Your task to perform on an android device: uninstall "DoorDash - Food Delivery" Image 0: 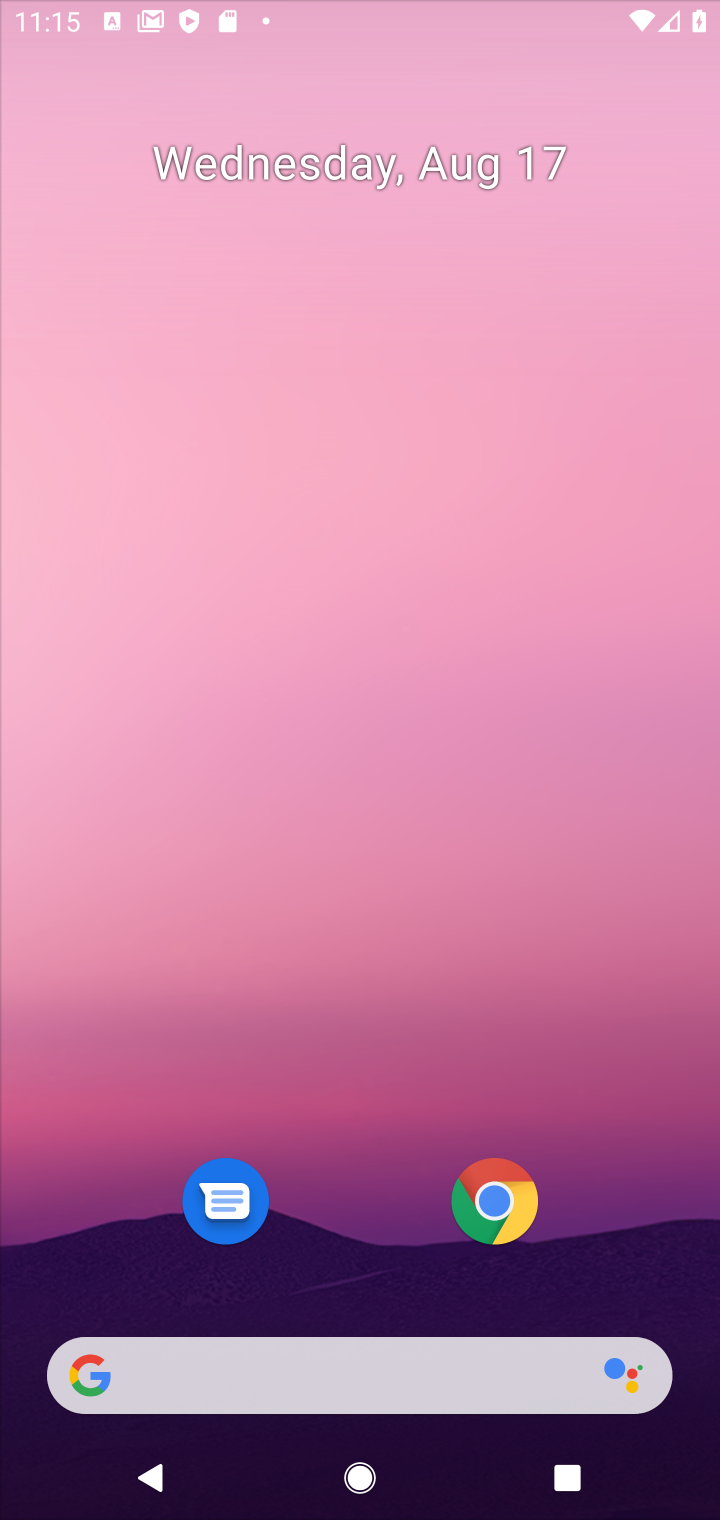
Step 0: press home button
Your task to perform on an android device: uninstall "DoorDash - Food Delivery" Image 1: 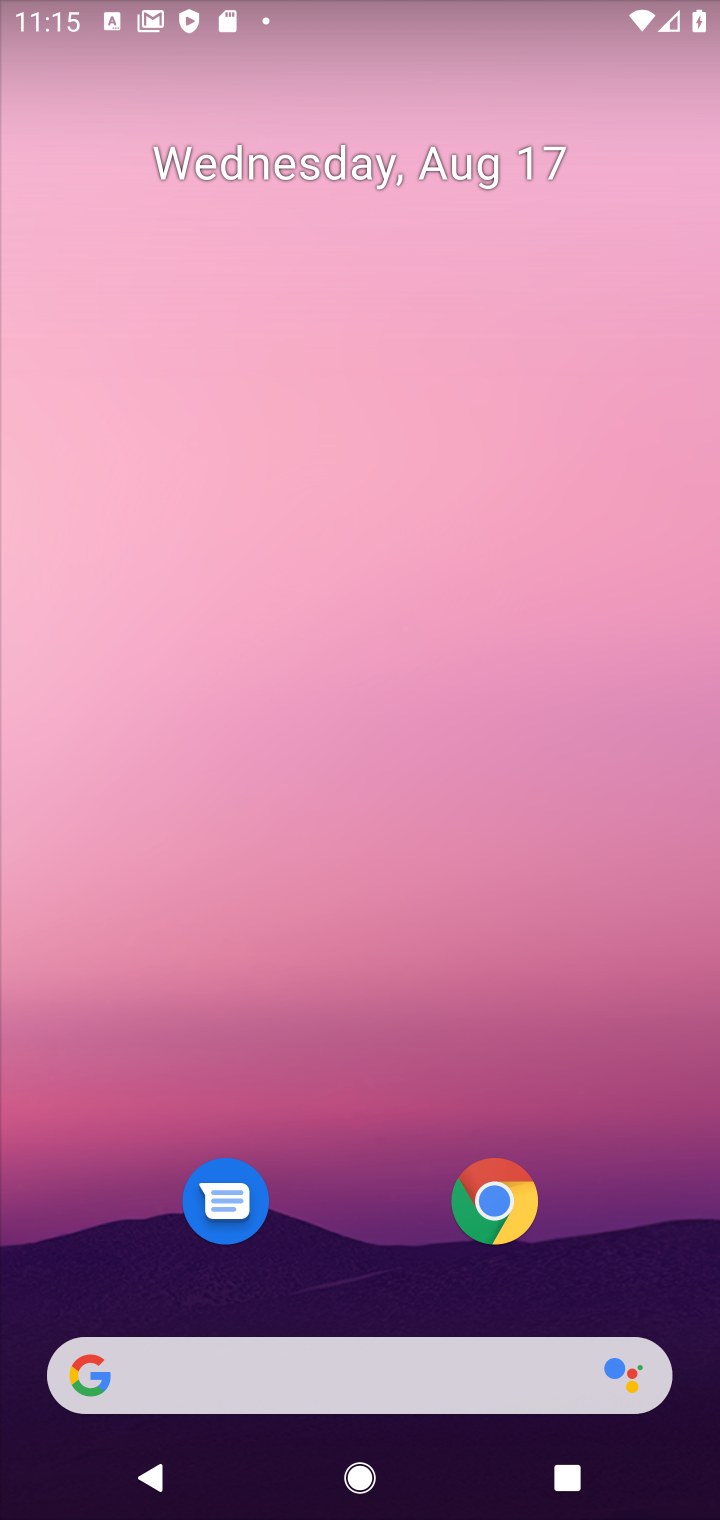
Step 1: drag from (355, 1098) to (424, 162)
Your task to perform on an android device: uninstall "DoorDash - Food Delivery" Image 2: 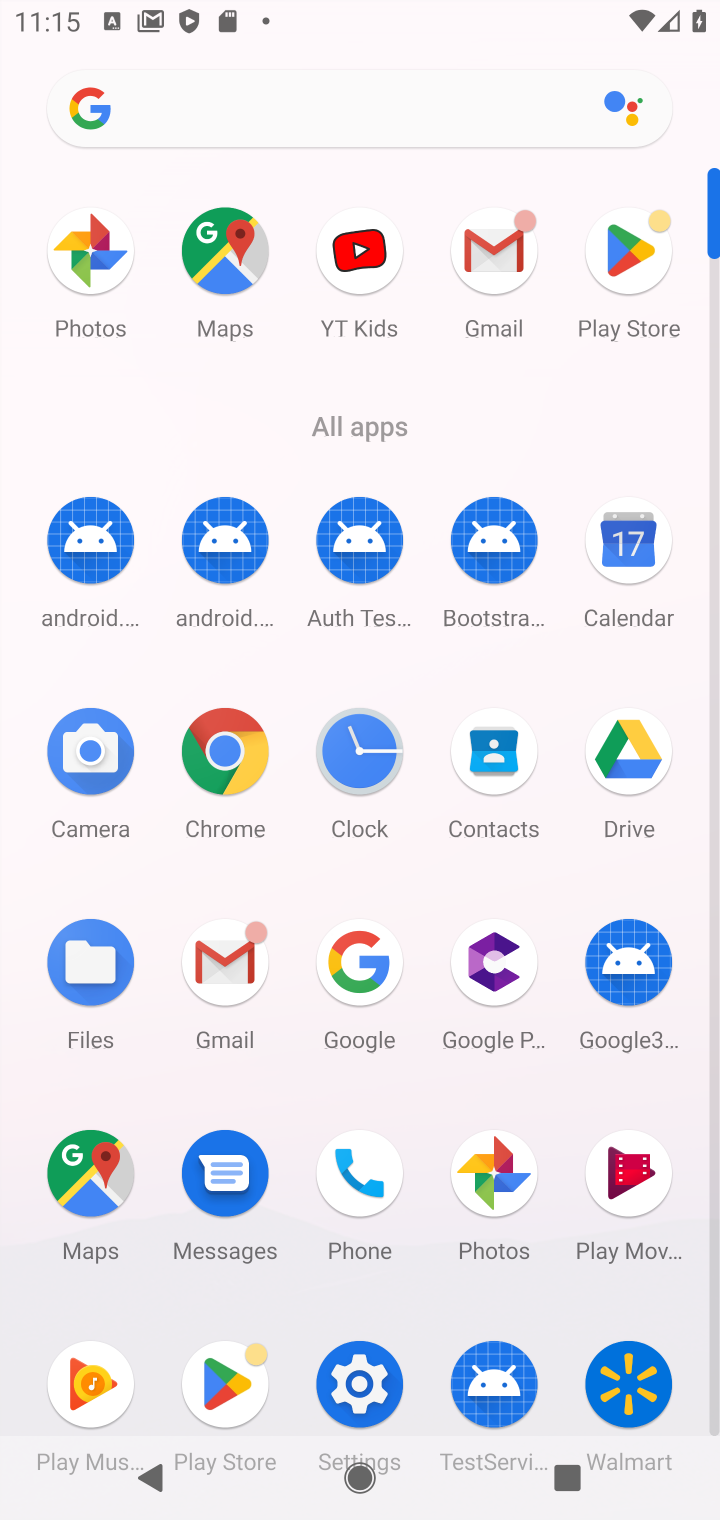
Step 2: click (645, 267)
Your task to perform on an android device: uninstall "DoorDash - Food Delivery" Image 3: 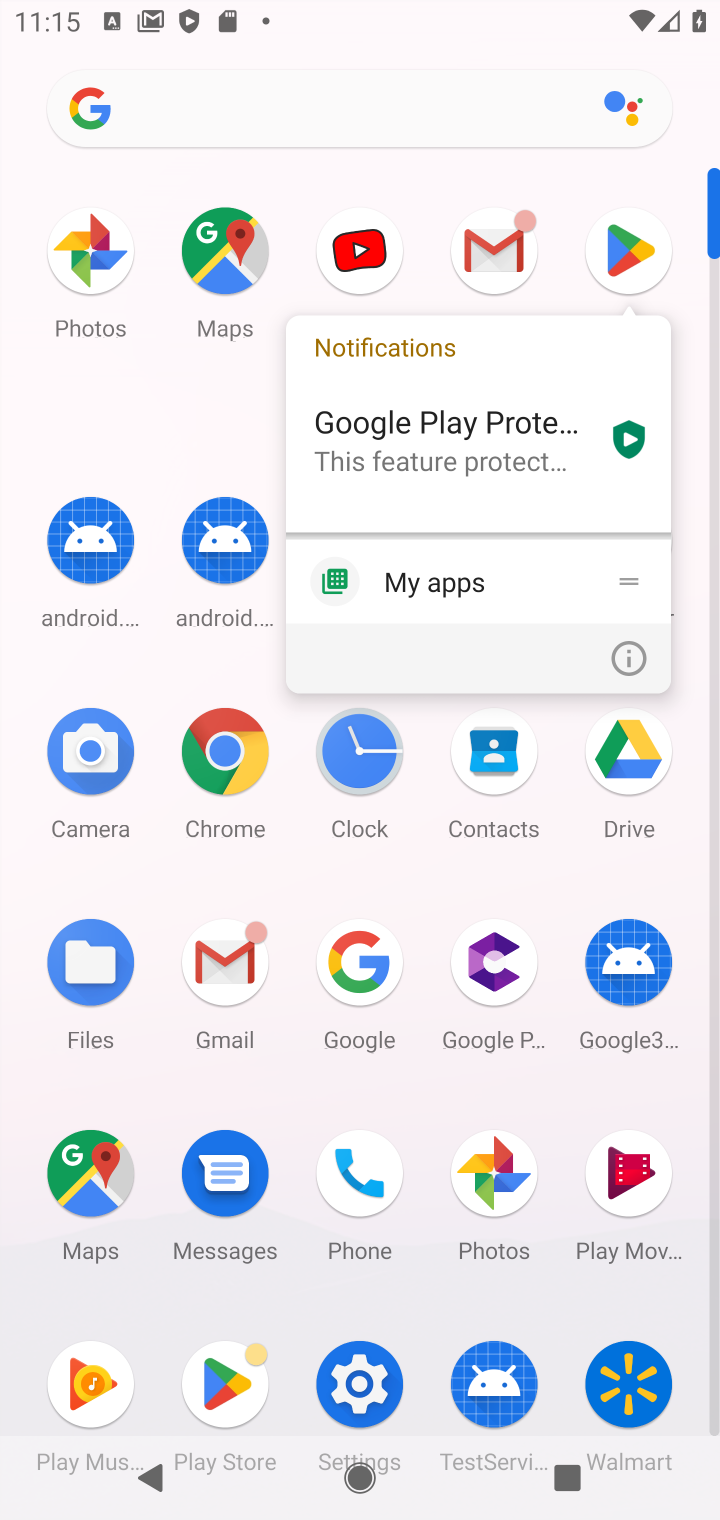
Step 3: click (633, 254)
Your task to perform on an android device: uninstall "DoorDash - Food Delivery" Image 4: 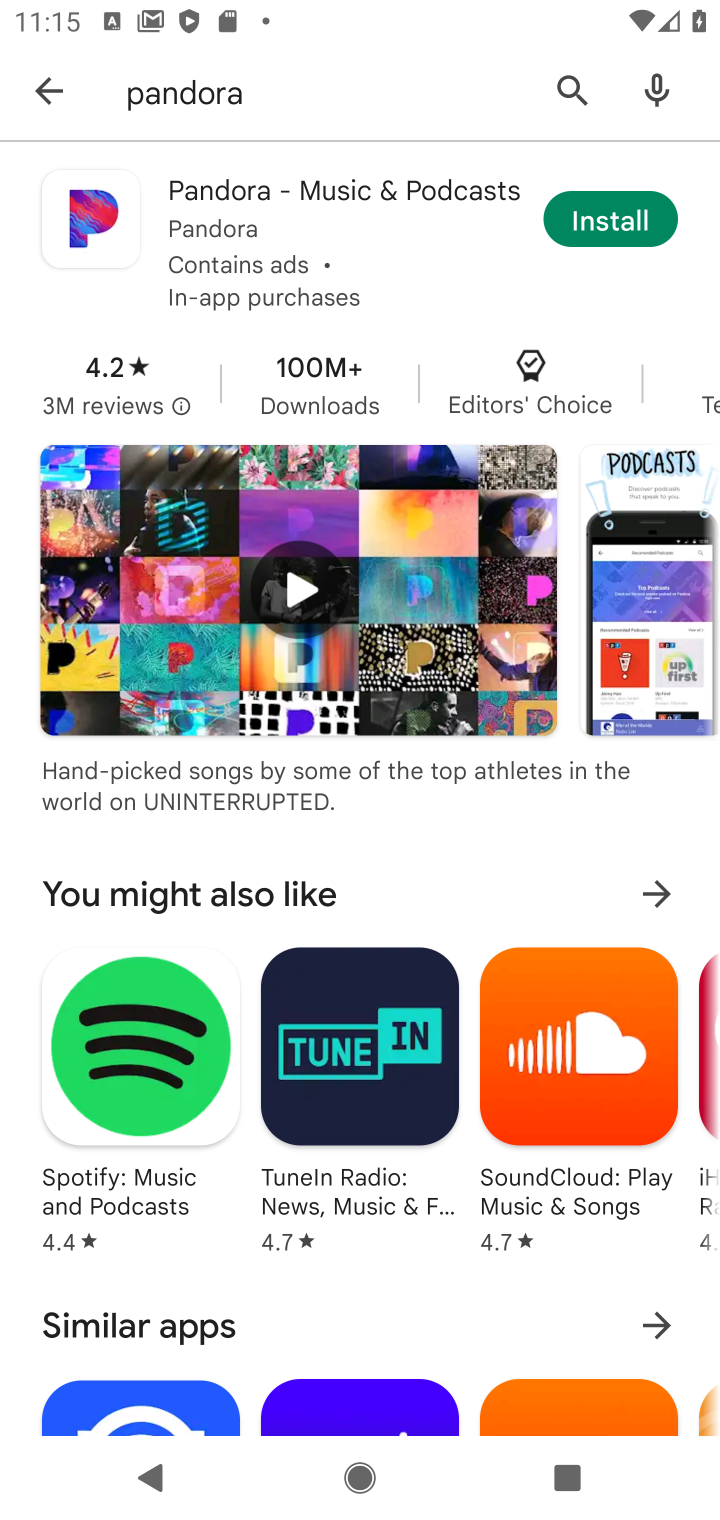
Step 4: click (318, 101)
Your task to perform on an android device: uninstall "DoorDash - Food Delivery" Image 5: 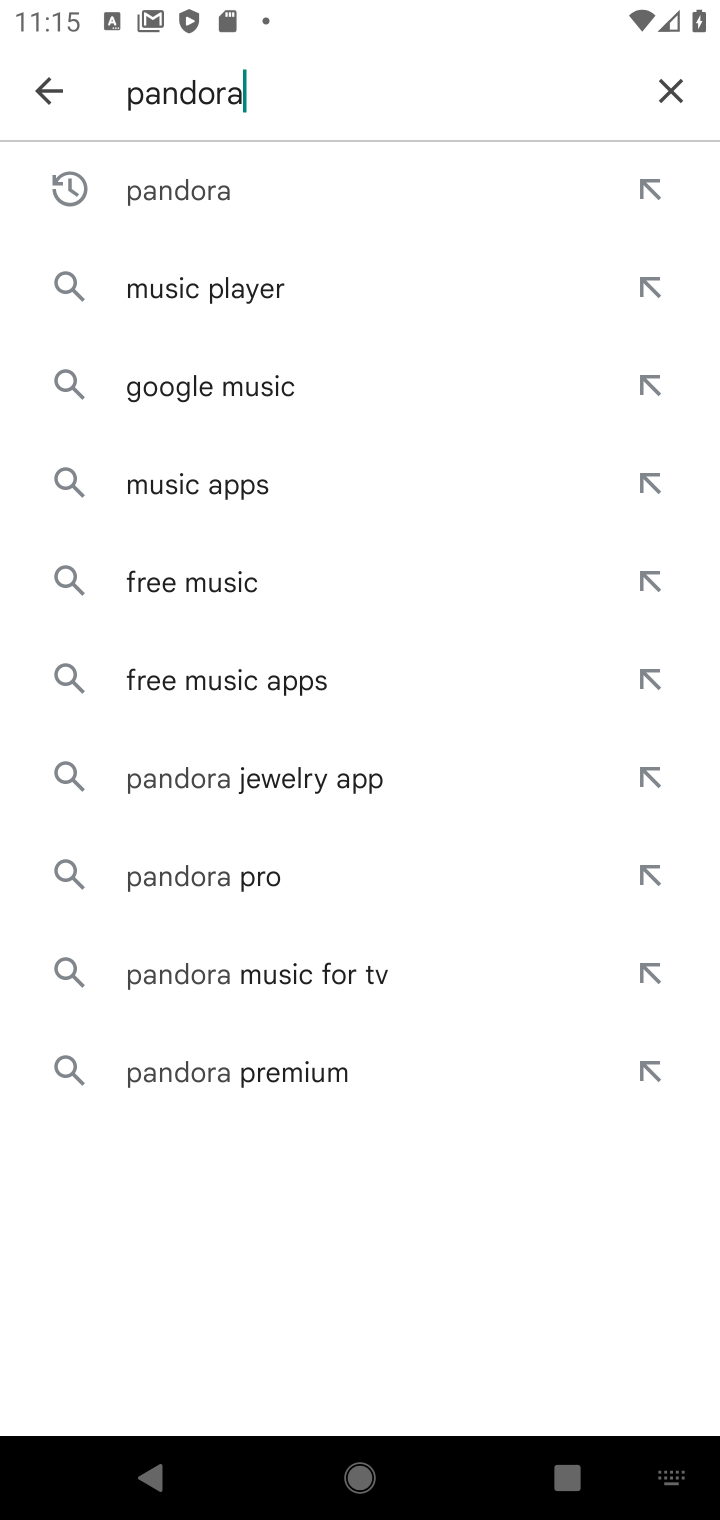
Step 5: click (680, 85)
Your task to perform on an android device: uninstall "DoorDash - Food Delivery" Image 6: 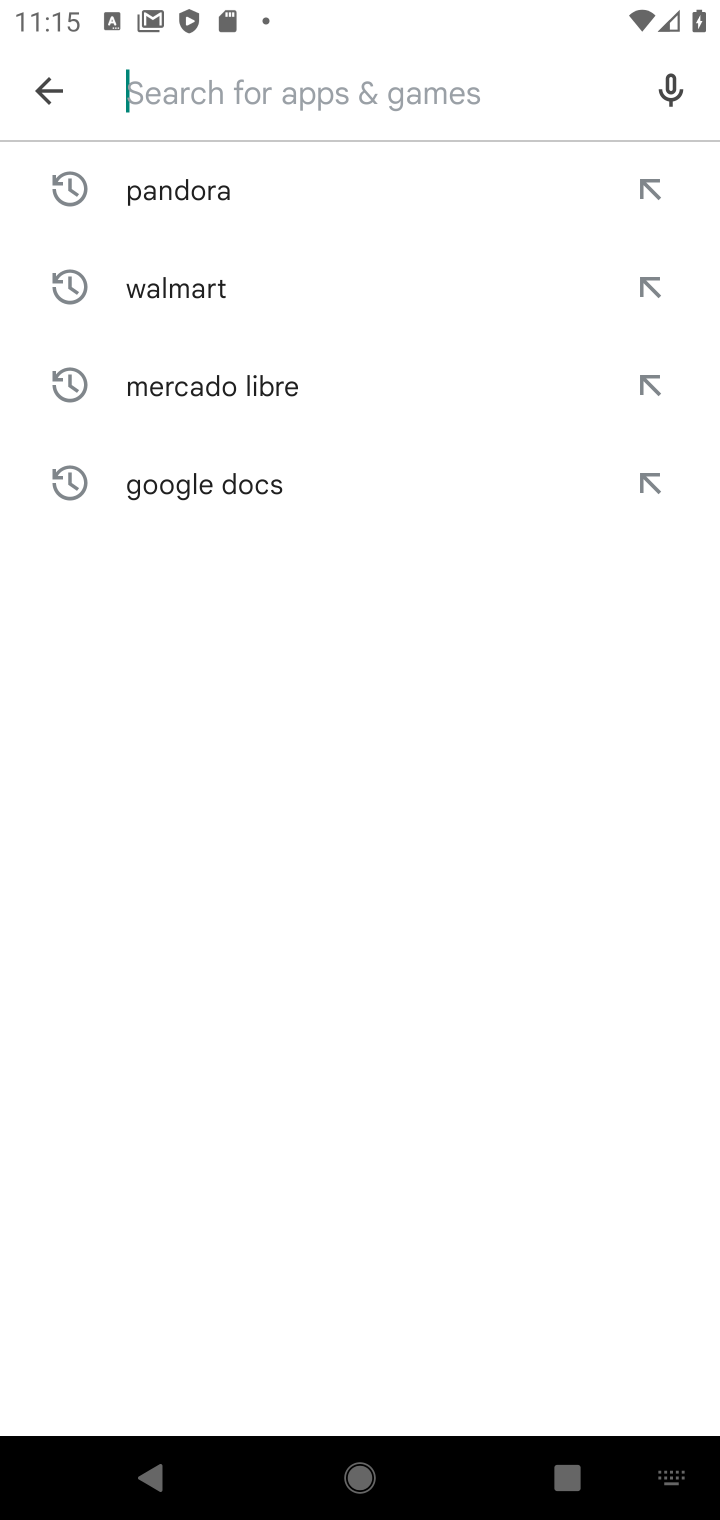
Step 6: type "DoorDash"
Your task to perform on an android device: uninstall "DoorDash - Food Delivery" Image 7: 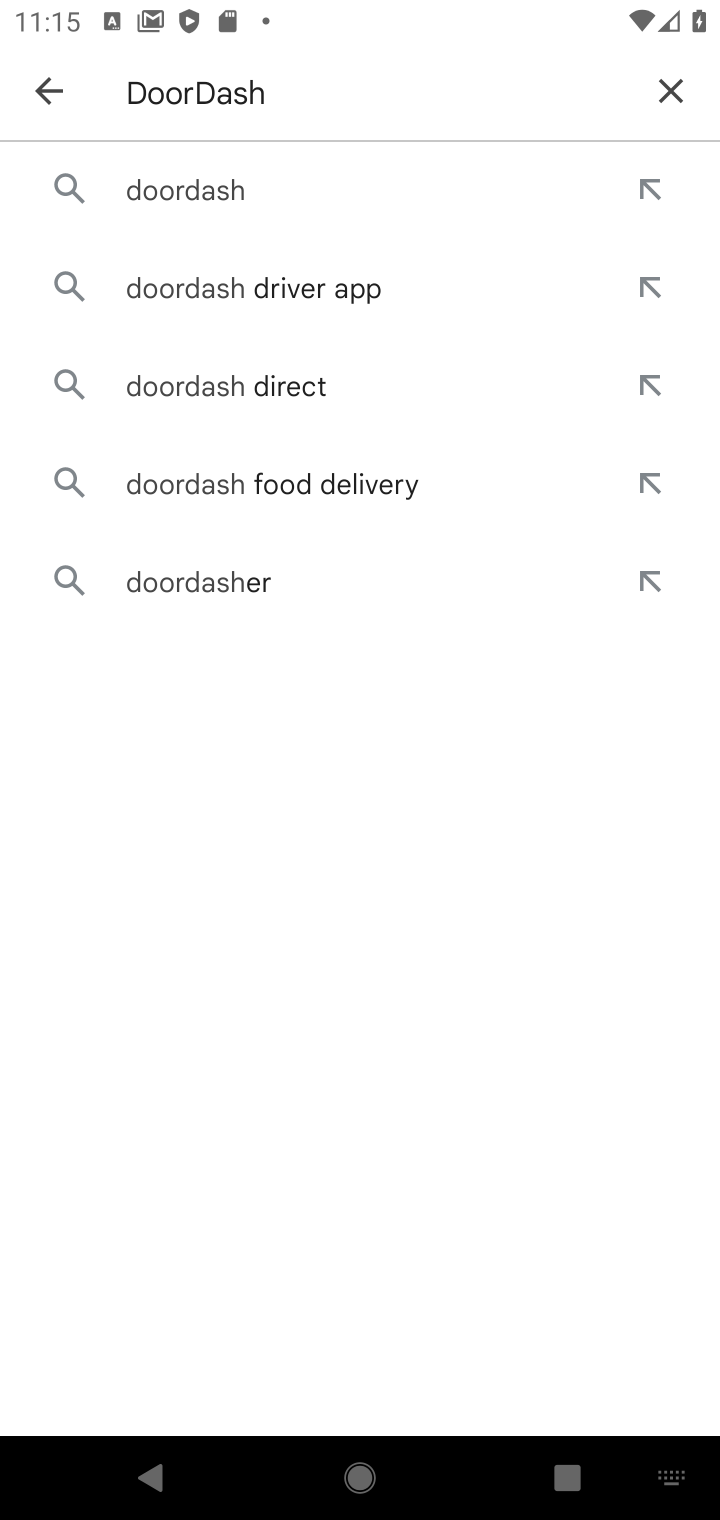
Step 7: type " -Food delivery"
Your task to perform on an android device: uninstall "DoorDash - Food Delivery" Image 8: 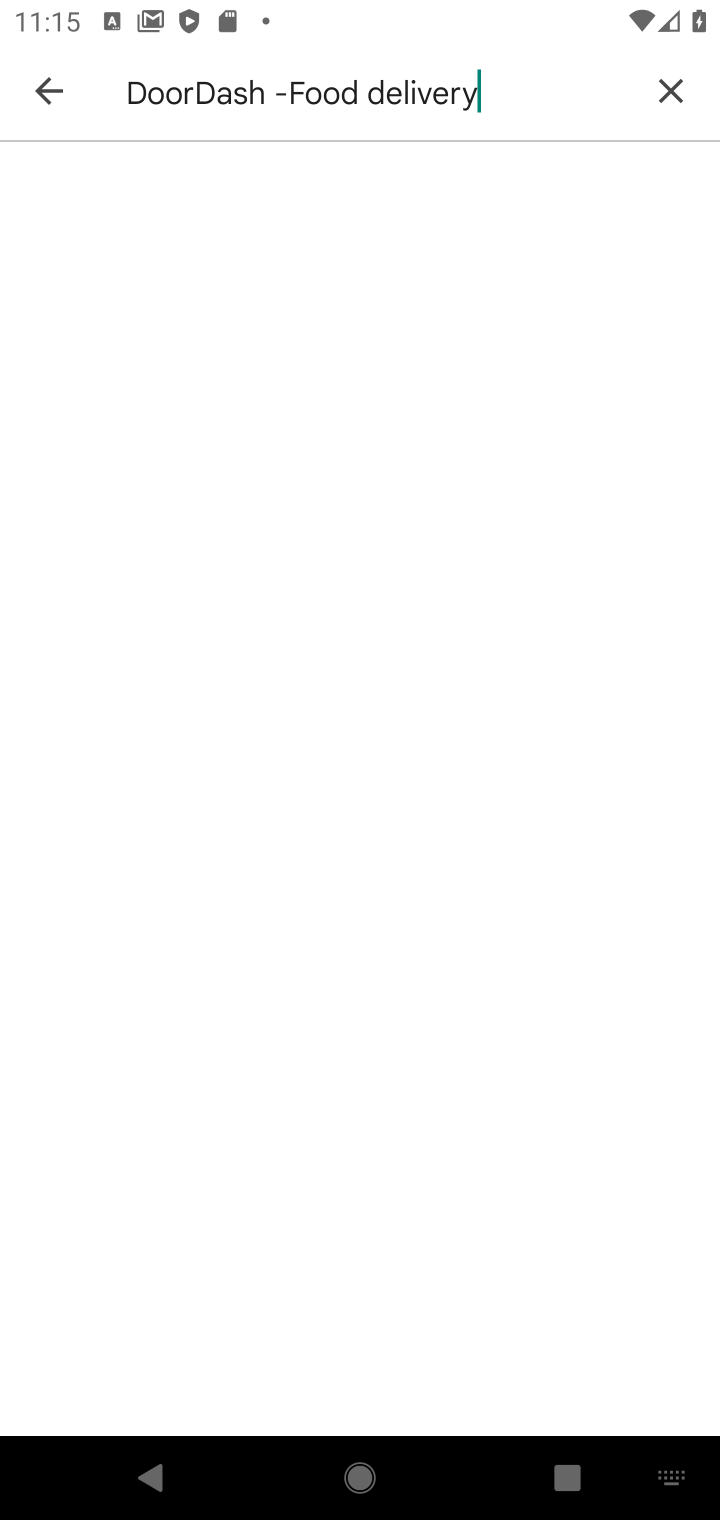
Step 8: click (352, 225)
Your task to perform on an android device: uninstall "DoorDash - Food Delivery" Image 9: 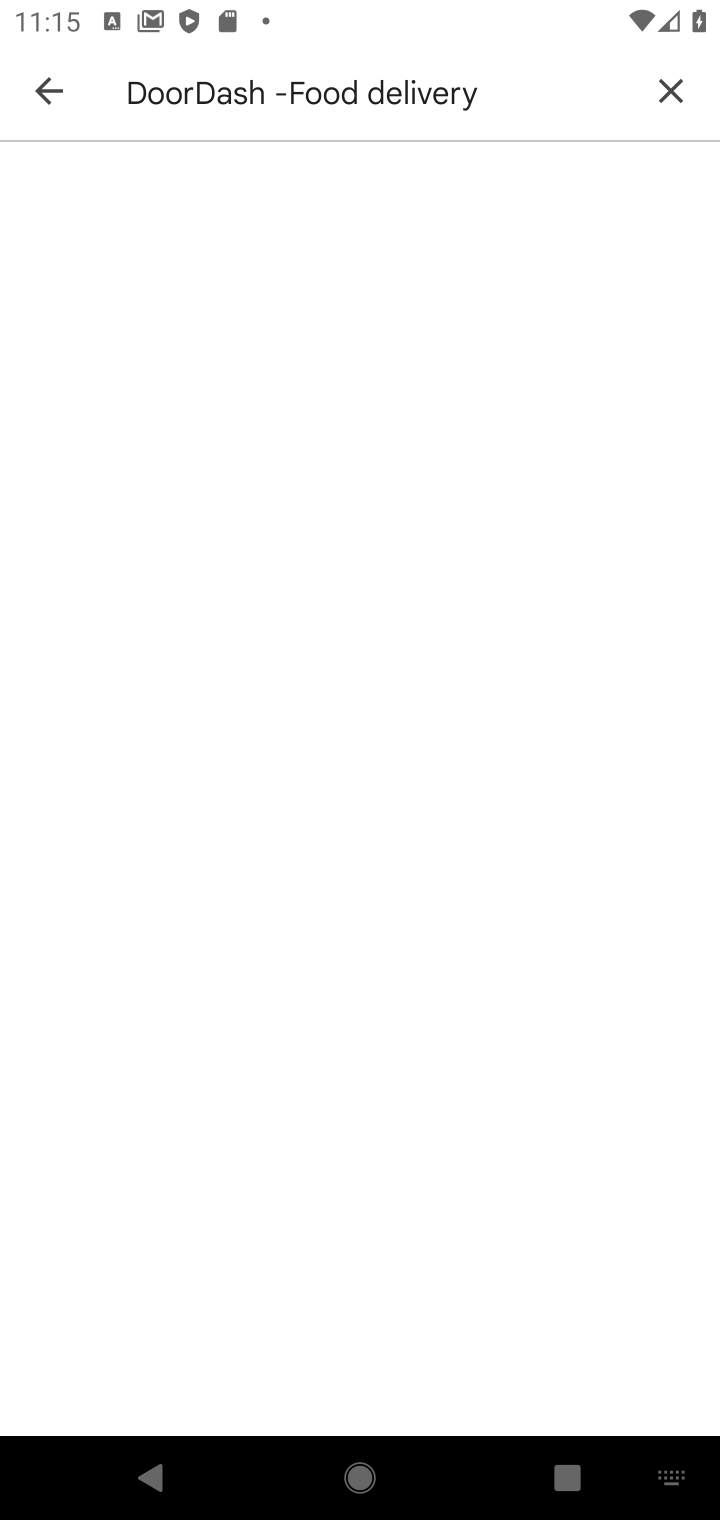
Step 9: click (444, 663)
Your task to perform on an android device: uninstall "DoorDash - Food Delivery" Image 10: 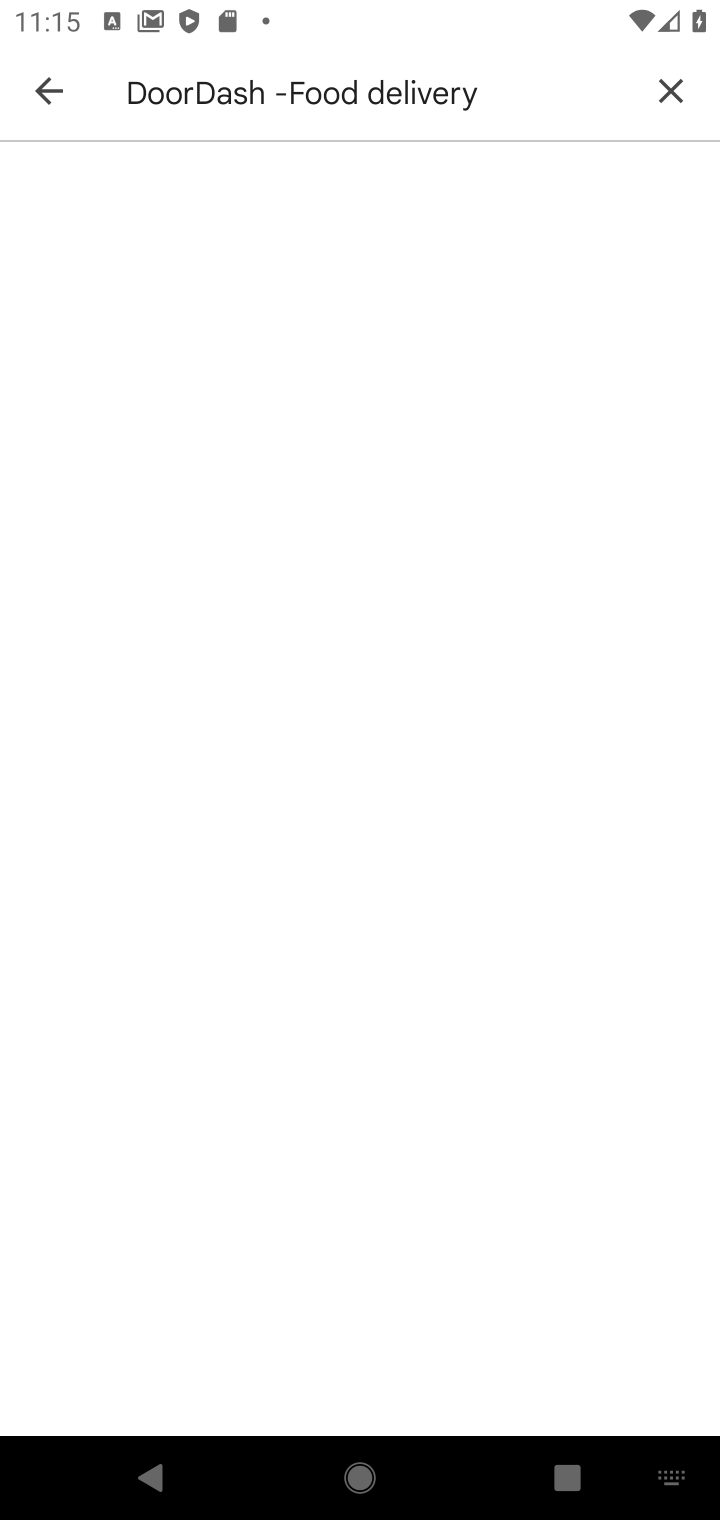
Step 10: click (51, 92)
Your task to perform on an android device: uninstall "DoorDash - Food Delivery" Image 11: 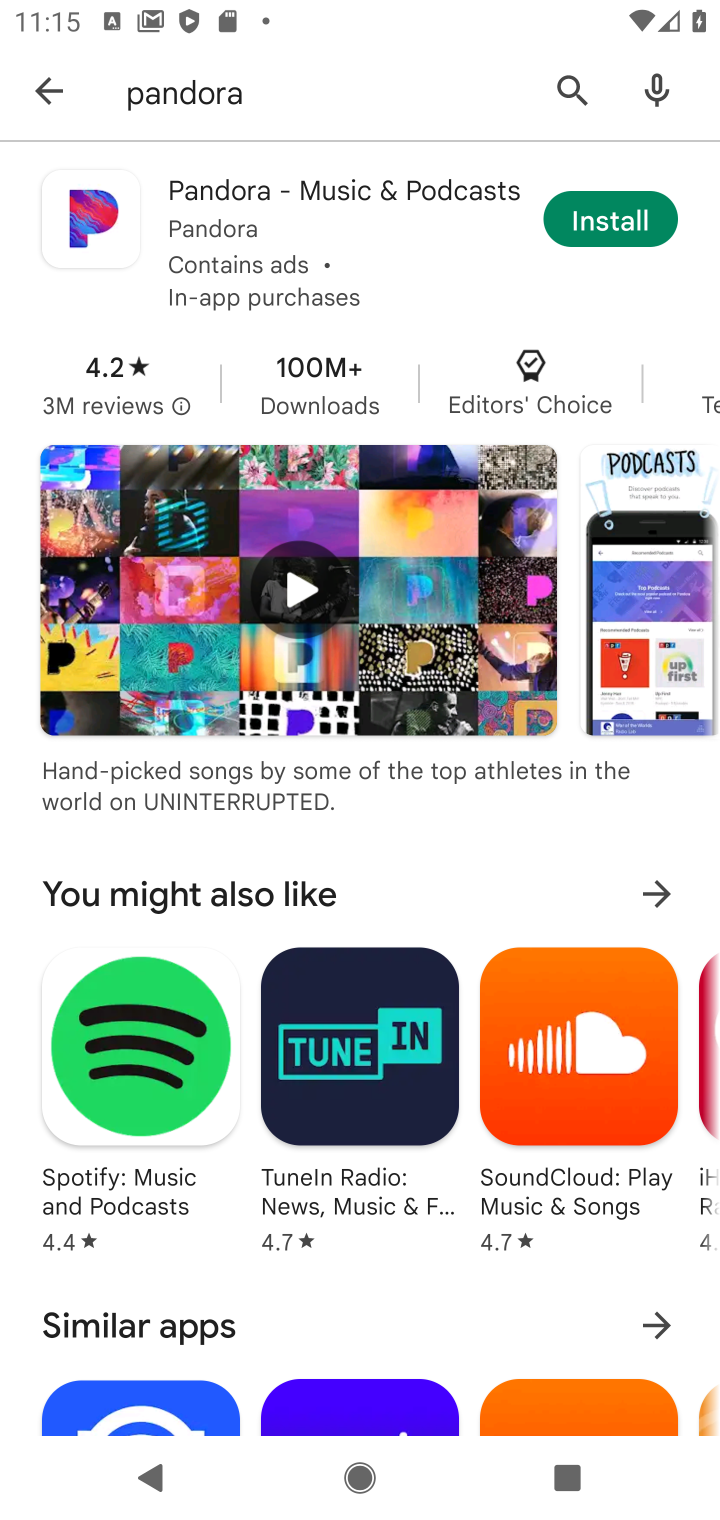
Step 11: click (59, 92)
Your task to perform on an android device: uninstall "DoorDash - Food Delivery" Image 12: 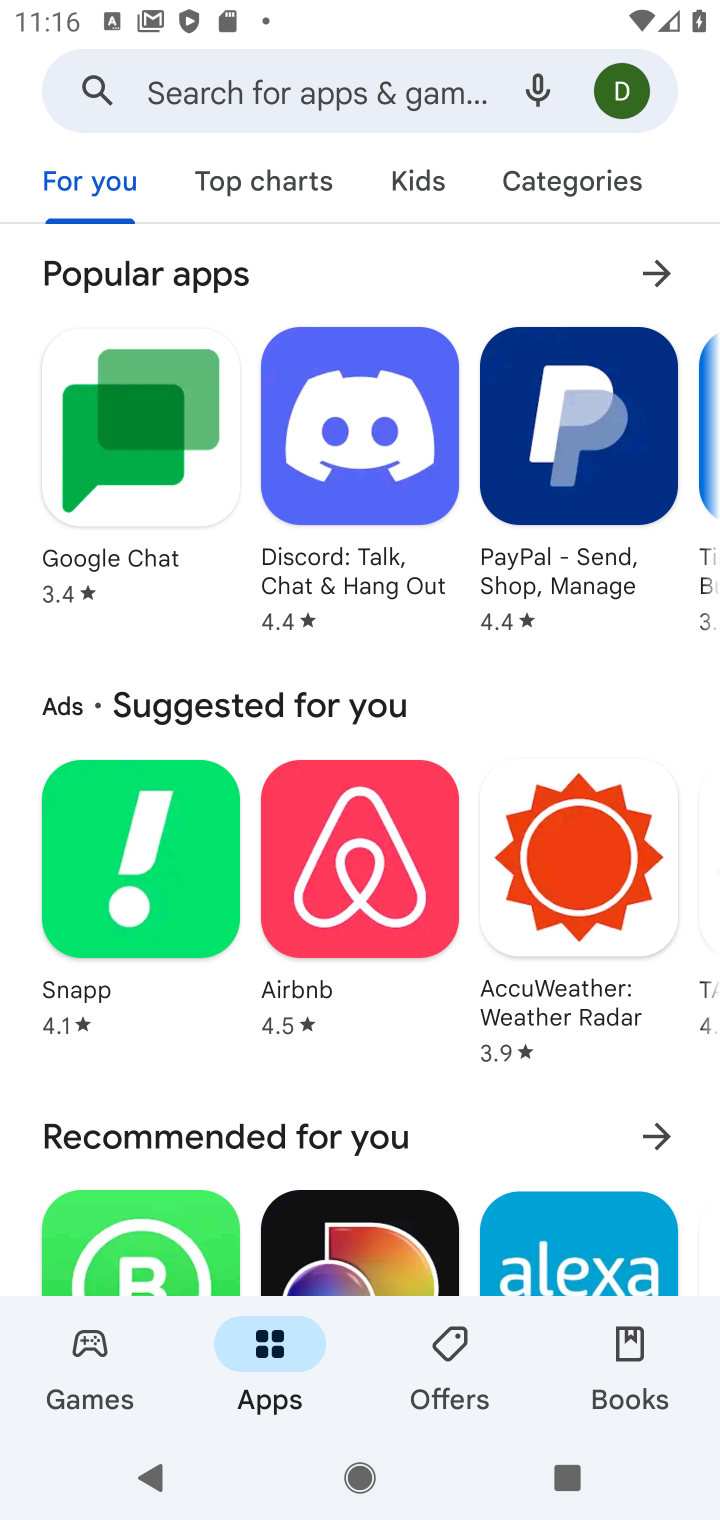
Step 12: click (331, 89)
Your task to perform on an android device: uninstall "DoorDash - Food Delivery" Image 13: 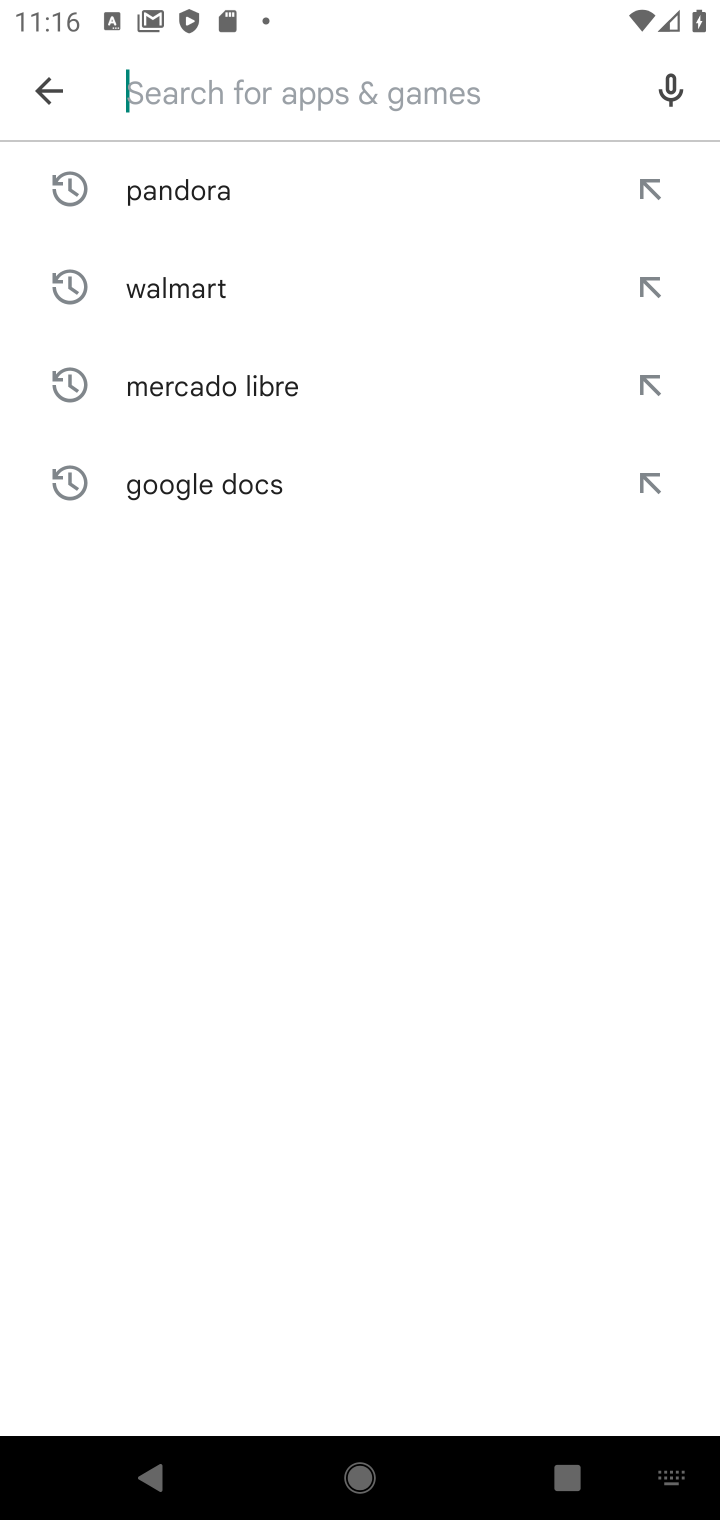
Step 13: type "DoorDash -Food delivery"
Your task to perform on an android device: uninstall "DoorDash - Food Delivery" Image 14: 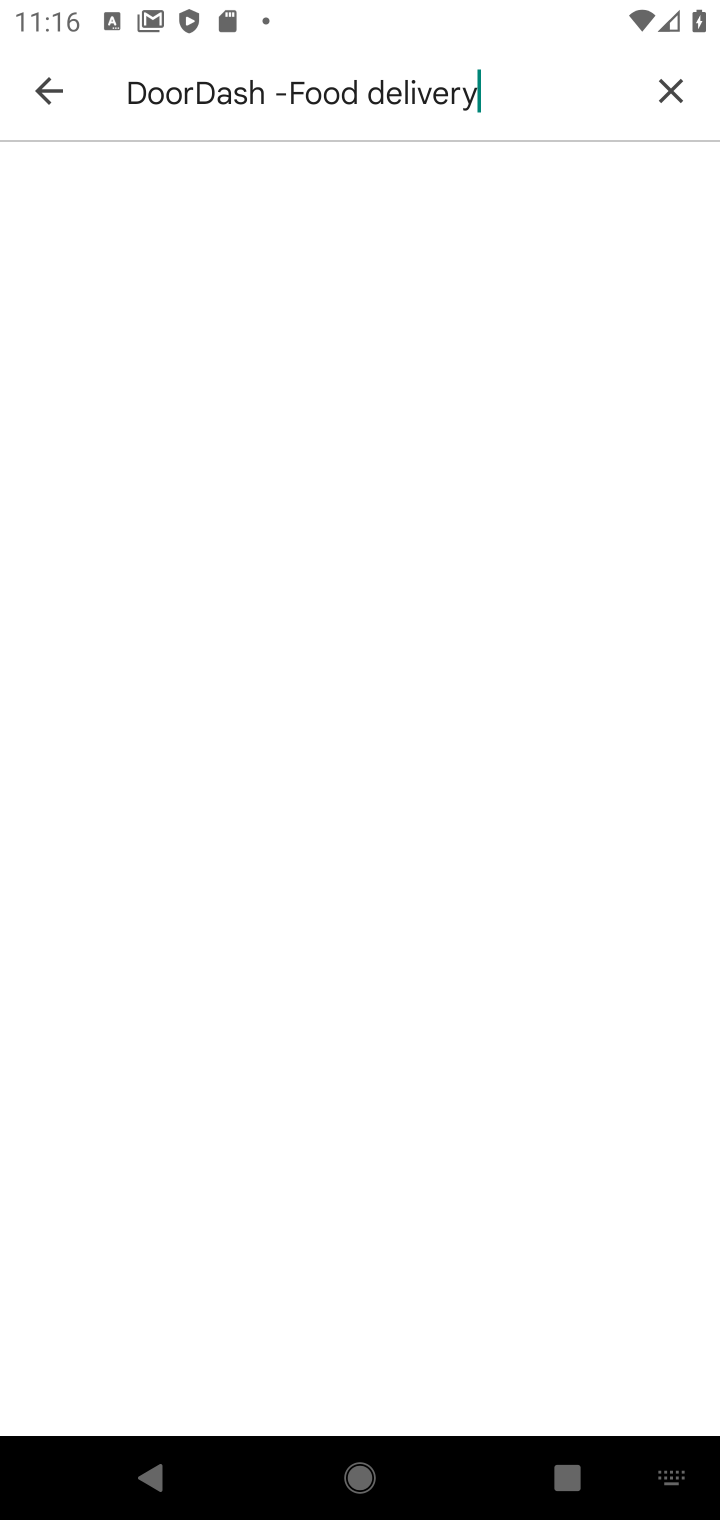
Step 14: click (229, 218)
Your task to perform on an android device: uninstall "DoorDash - Food Delivery" Image 15: 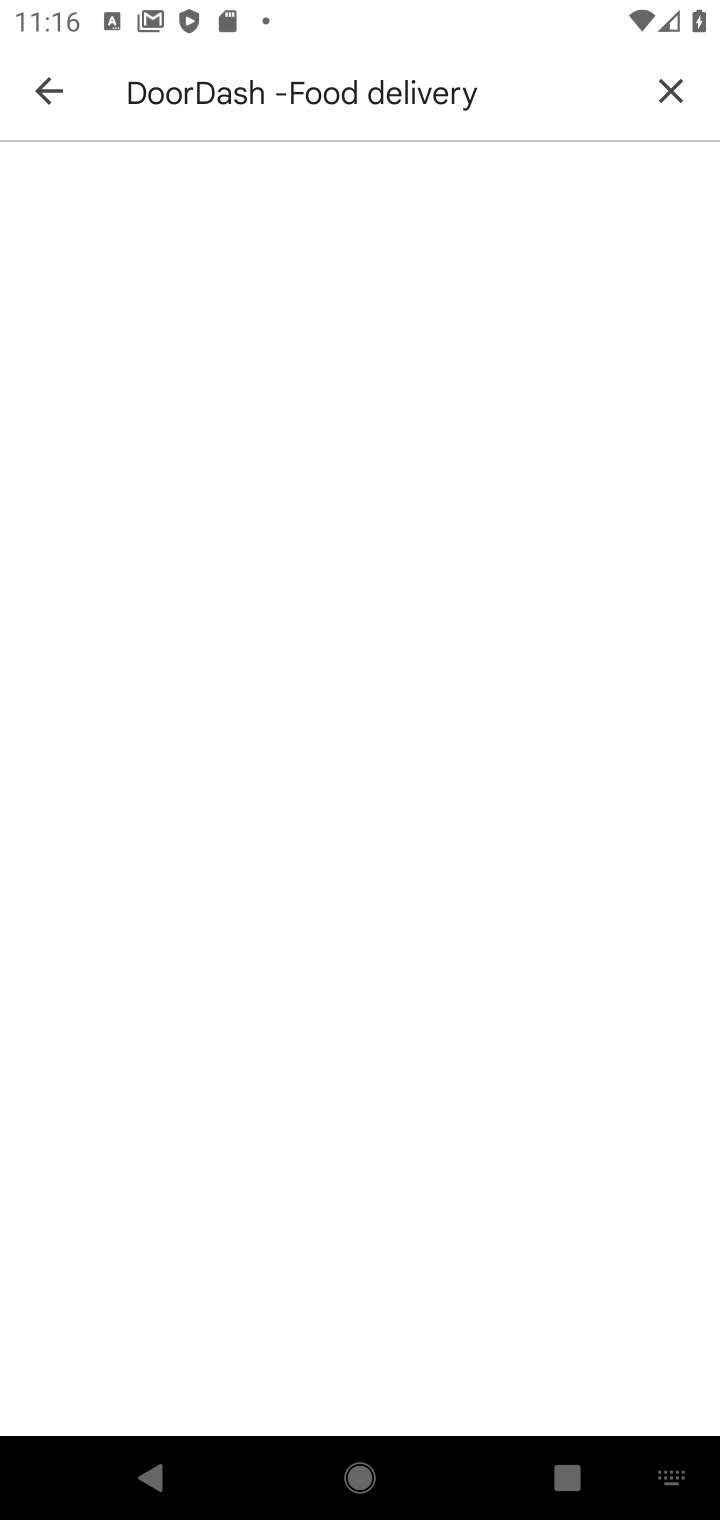
Step 15: click (229, 220)
Your task to perform on an android device: uninstall "DoorDash - Food Delivery" Image 16: 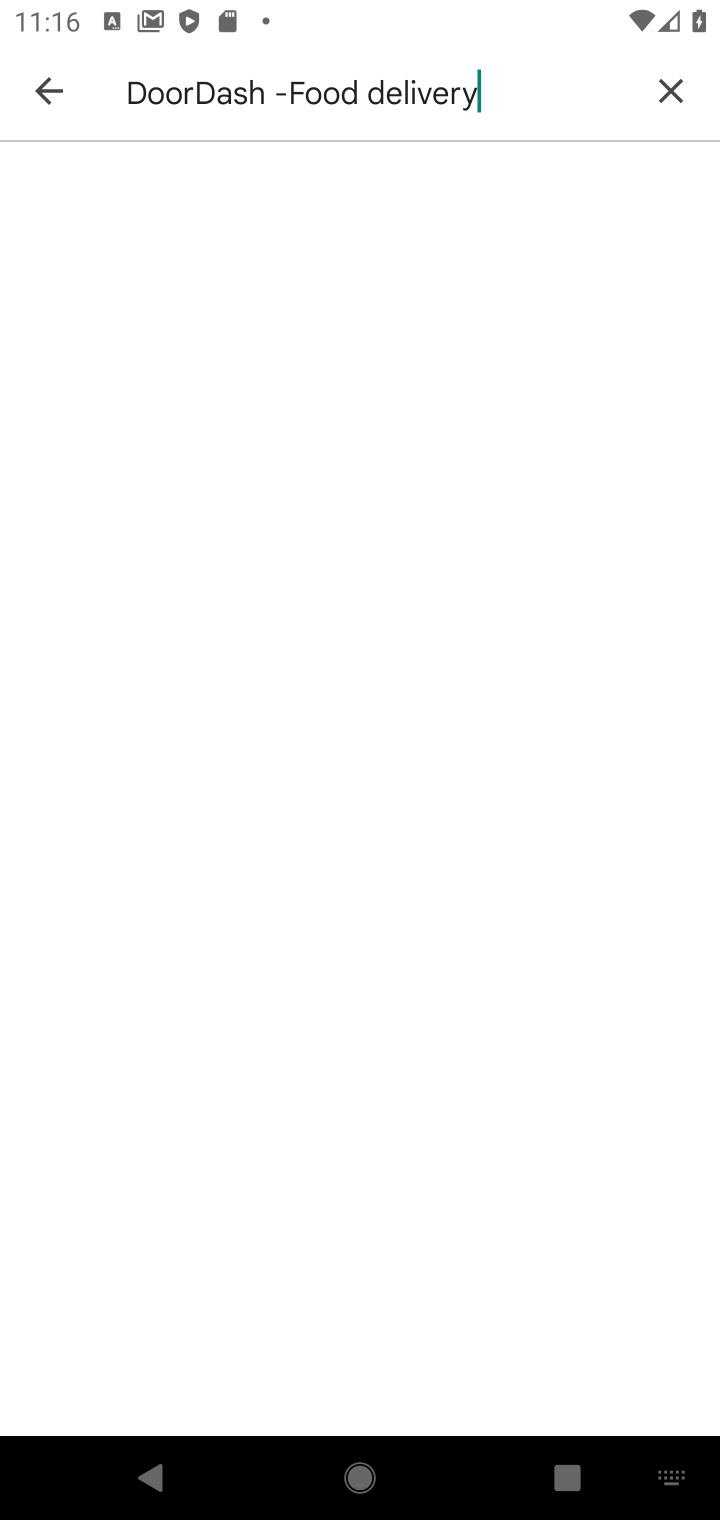
Step 16: click (229, 220)
Your task to perform on an android device: uninstall "DoorDash - Food Delivery" Image 17: 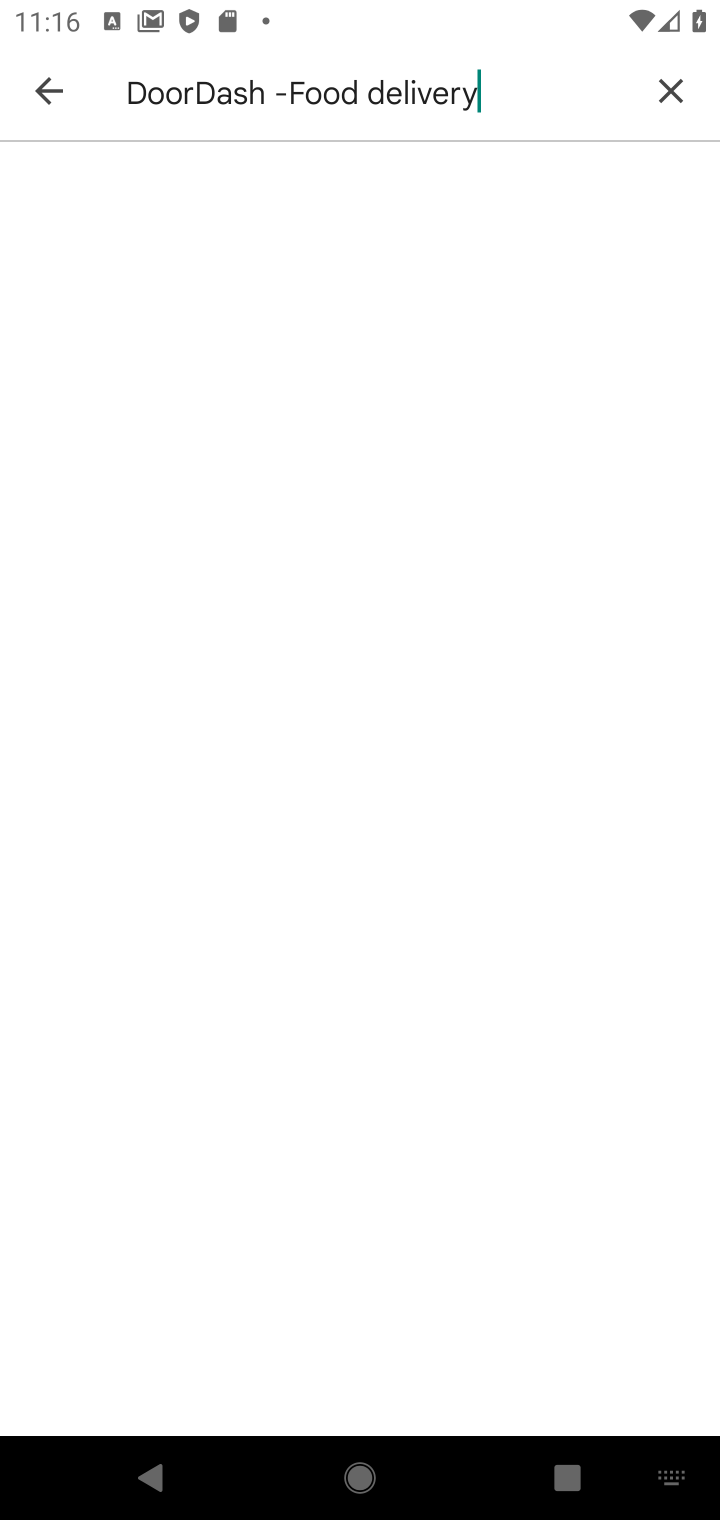
Step 17: click (279, 209)
Your task to perform on an android device: uninstall "DoorDash - Food Delivery" Image 18: 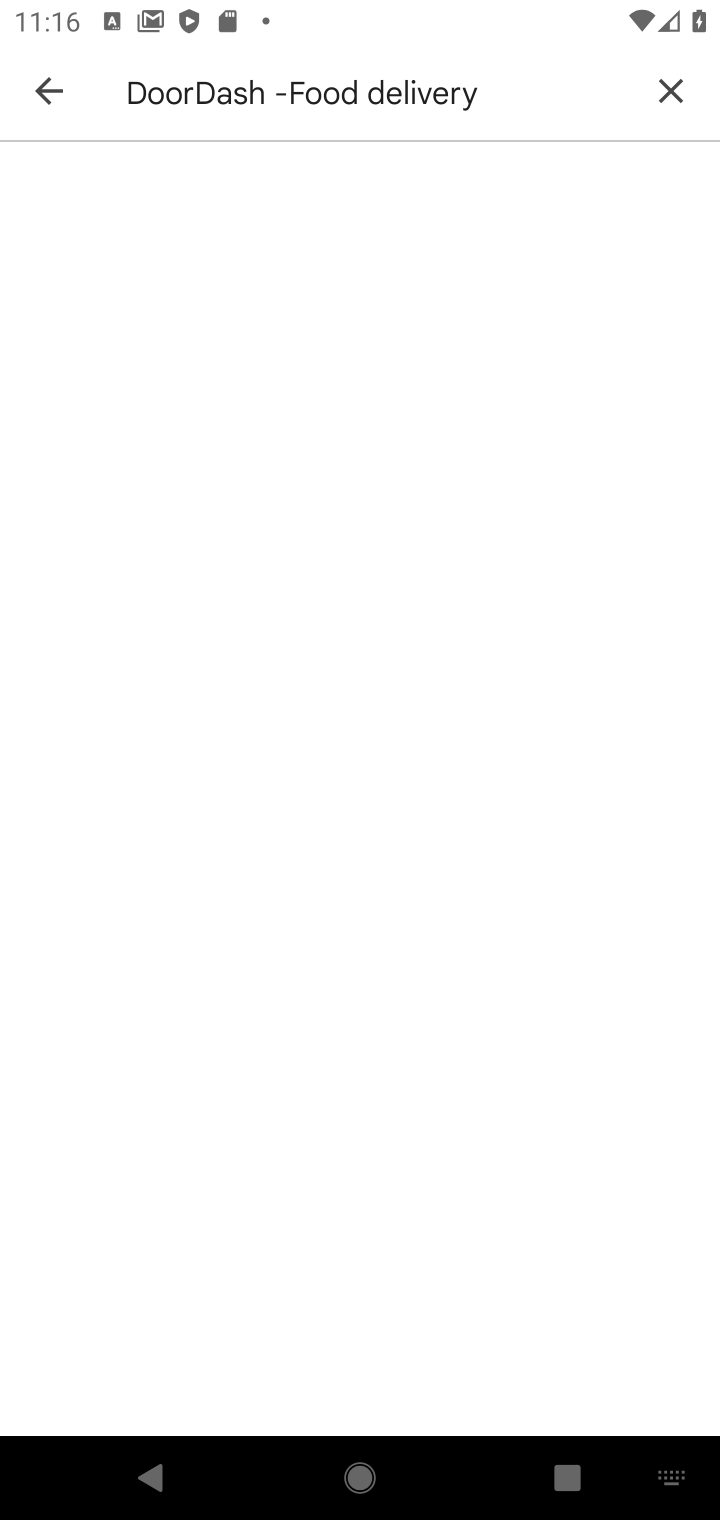
Step 18: task complete